Your task to perform on an android device: Go to privacy settings Image 0: 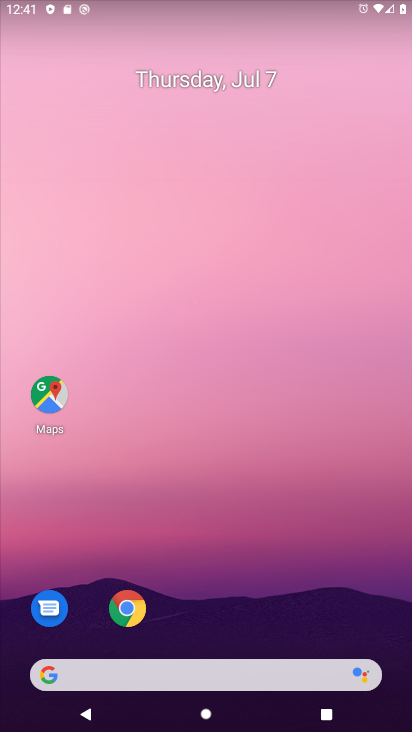
Step 0: drag from (206, 638) to (201, 95)
Your task to perform on an android device: Go to privacy settings Image 1: 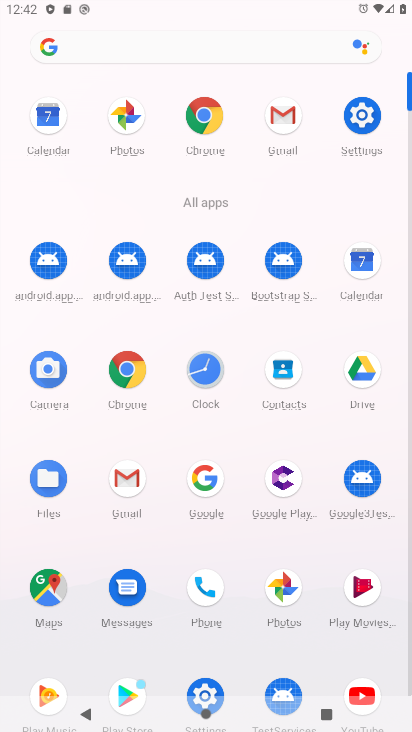
Step 1: click (375, 115)
Your task to perform on an android device: Go to privacy settings Image 2: 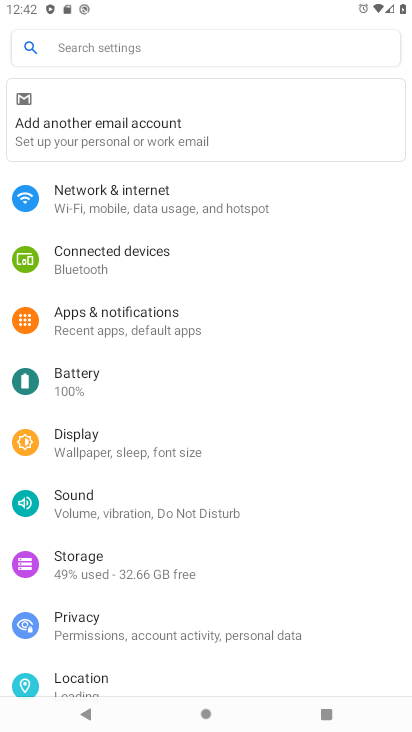
Step 2: click (100, 633)
Your task to perform on an android device: Go to privacy settings Image 3: 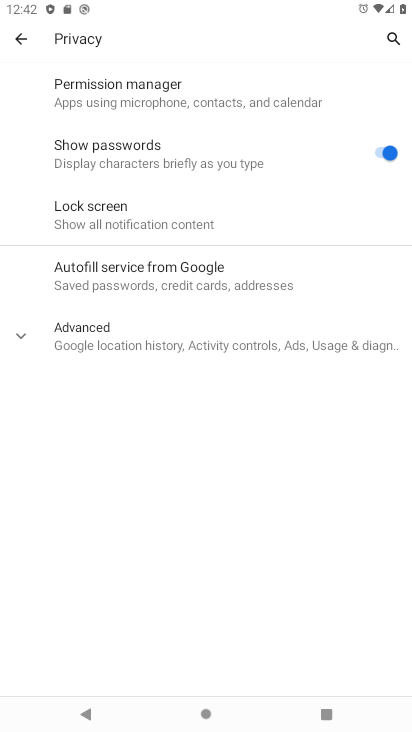
Step 3: task complete